Your task to perform on an android device: Go to settings Image 0: 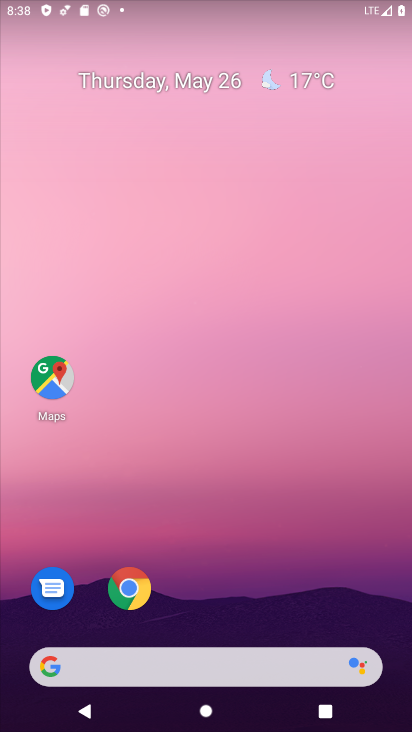
Step 0: drag from (368, 604) to (330, 134)
Your task to perform on an android device: Go to settings Image 1: 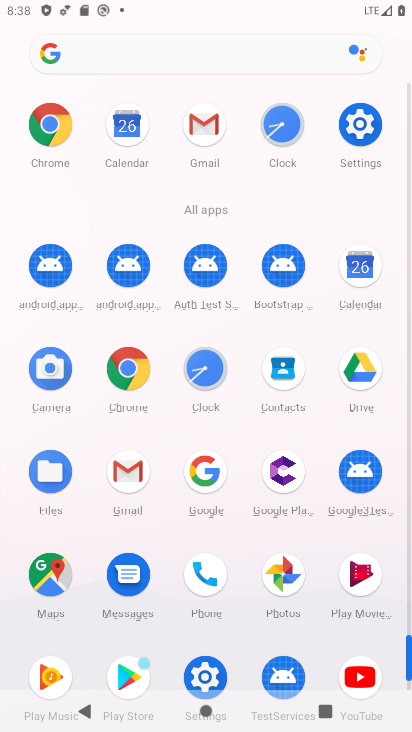
Step 1: click (202, 672)
Your task to perform on an android device: Go to settings Image 2: 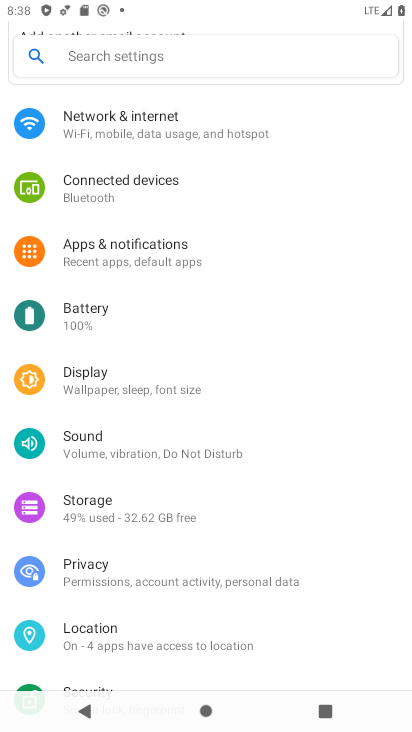
Step 2: task complete